Your task to perform on an android device: Go to display settings Image 0: 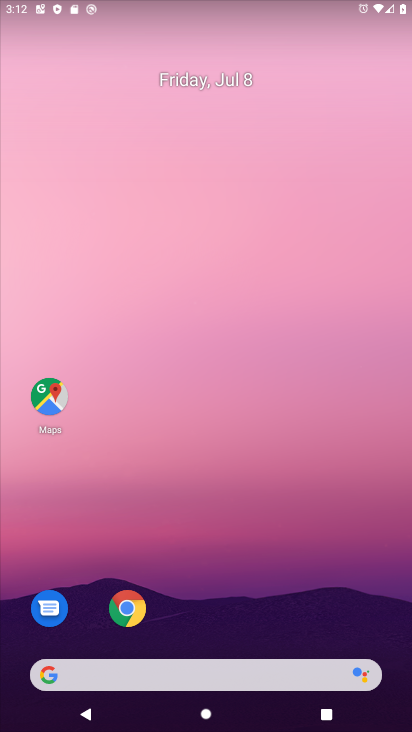
Step 0: drag from (223, 672) to (251, 1)
Your task to perform on an android device: Go to display settings Image 1: 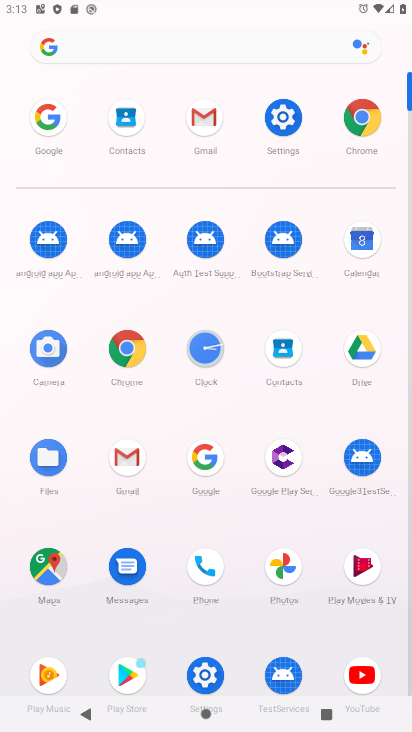
Step 1: click (286, 117)
Your task to perform on an android device: Go to display settings Image 2: 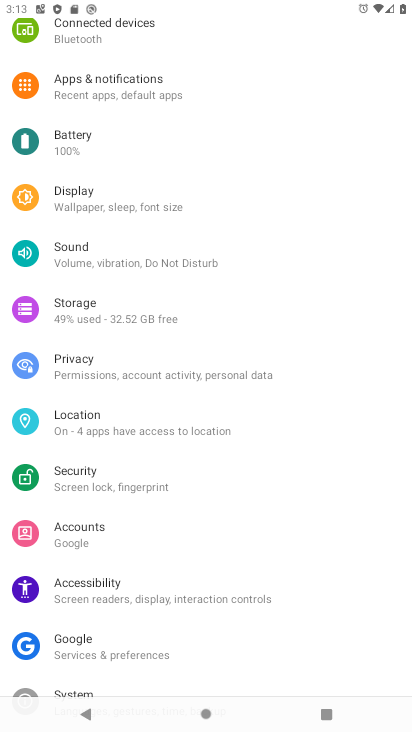
Step 2: click (78, 200)
Your task to perform on an android device: Go to display settings Image 3: 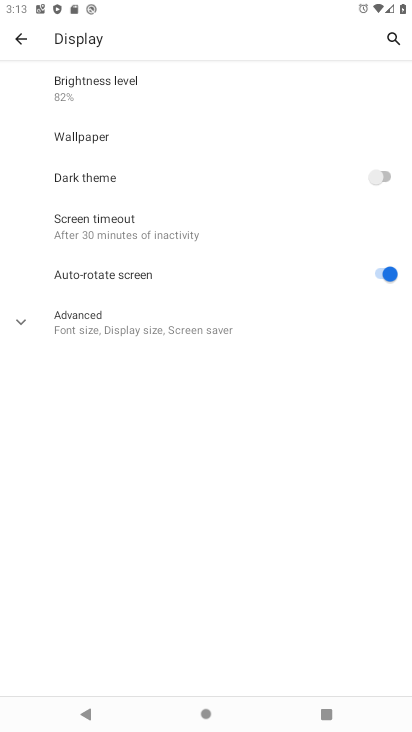
Step 3: task complete